Your task to perform on an android device: Is it going to rain this weekend? Image 0: 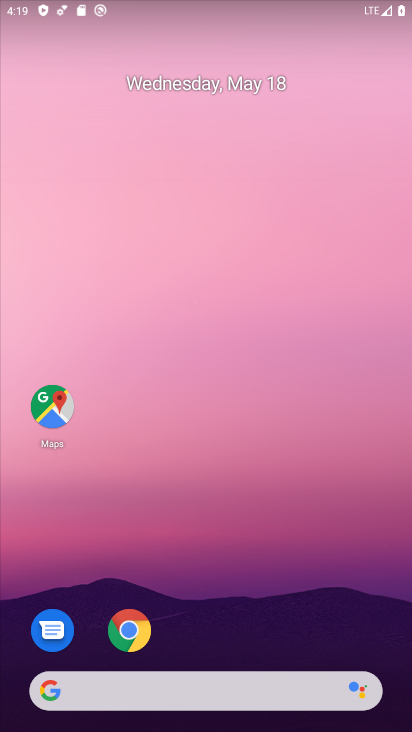
Step 0: drag from (214, 663) to (165, 6)
Your task to perform on an android device: Is it going to rain this weekend? Image 1: 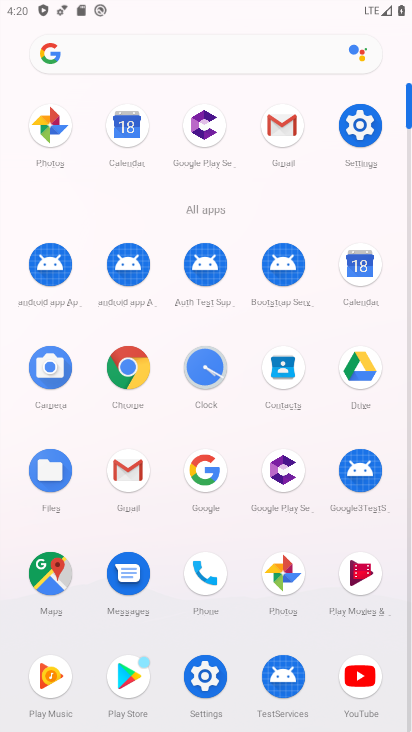
Step 1: click (191, 463)
Your task to perform on an android device: Is it going to rain this weekend? Image 2: 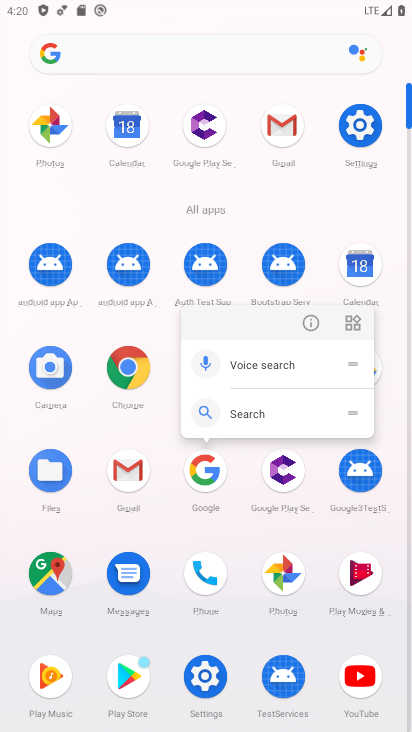
Step 2: click (210, 473)
Your task to perform on an android device: Is it going to rain this weekend? Image 3: 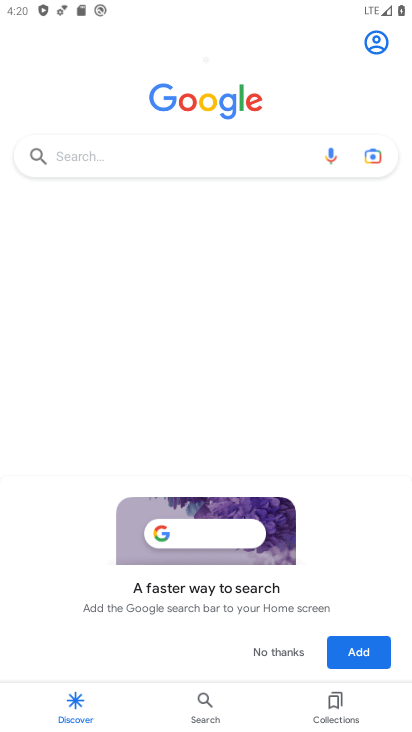
Step 3: click (210, 155)
Your task to perform on an android device: Is it going to rain this weekend? Image 4: 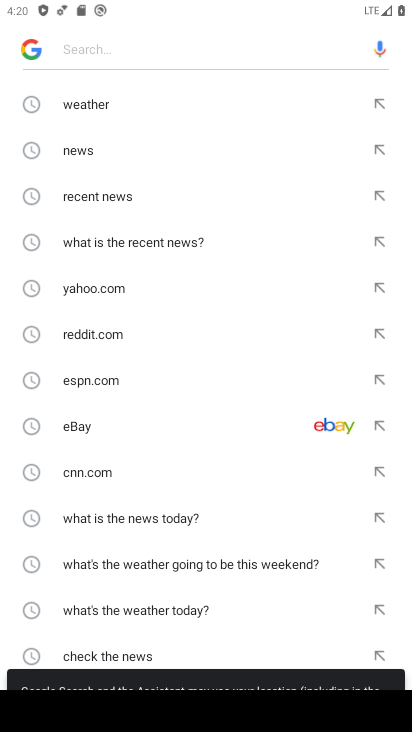
Step 4: click (98, 113)
Your task to perform on an android device: Is it going to rain this weekend? Image 5: 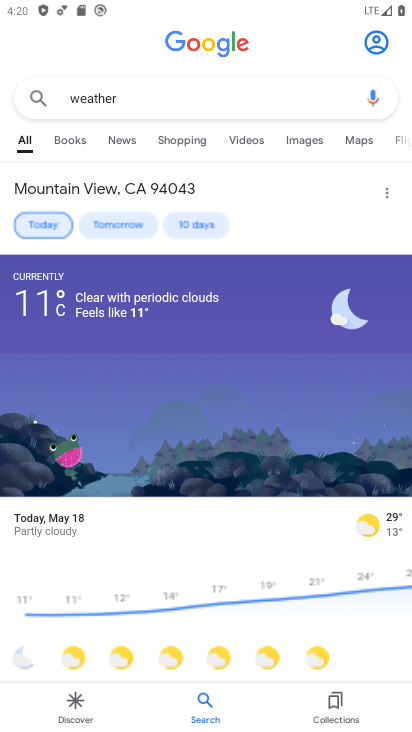
Step 5: click (206, 224)
Your task to perform on an android device: Is it going to rain this weekend? Image 6: 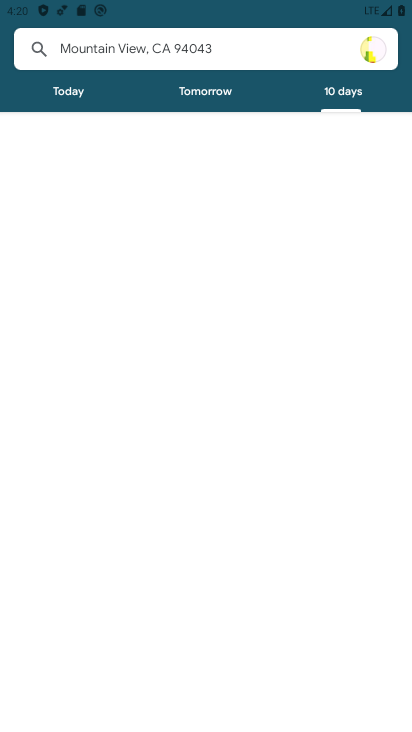
Step 6: task complete